Your task to perform on an android device: Go to settings Image 0: 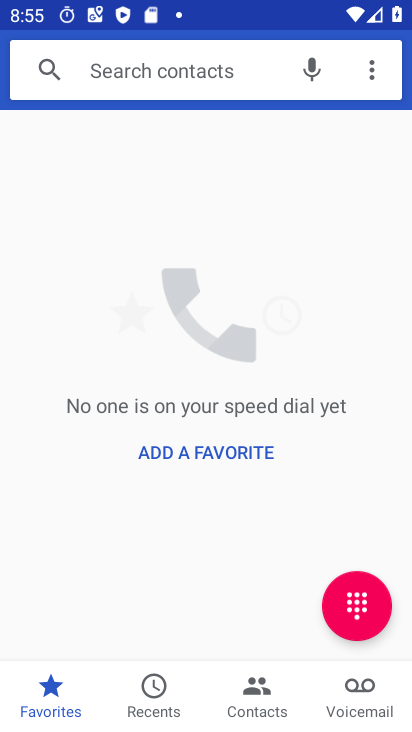
Step 0: press back button
Your task to perform on an android device: Go to settings Image 1: 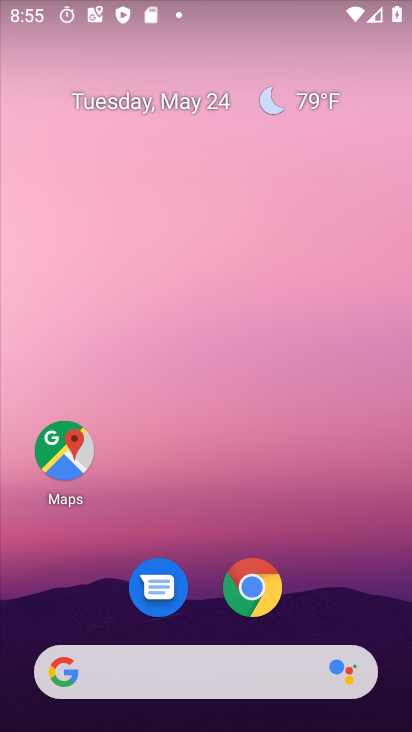
Step 1: drag from (329, 606) to (316, 29)
Your task to perform on an android device: Go to settings Image 2: 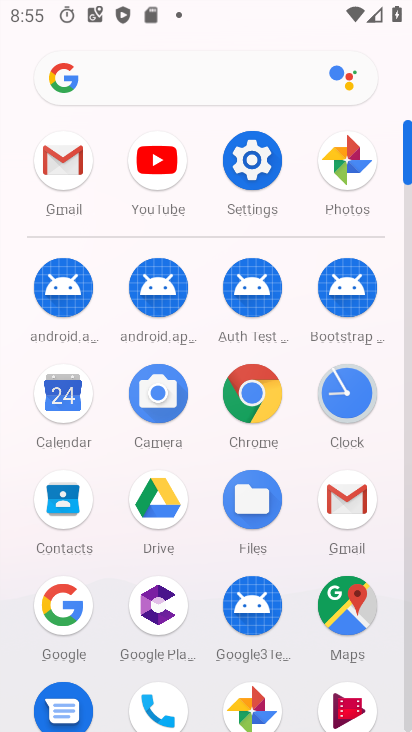
Step 2: click (252, 160)
Your task to perform on an android device: Go to settings Image 3: 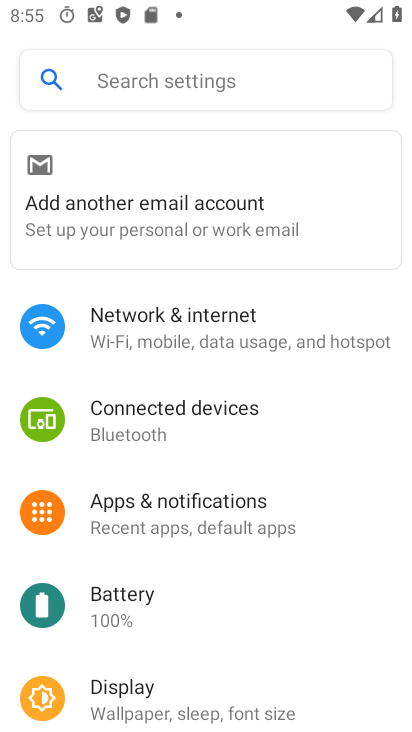
Step 3: task complete